Your task to perform on an android device: Open Google Chrome Image 0: 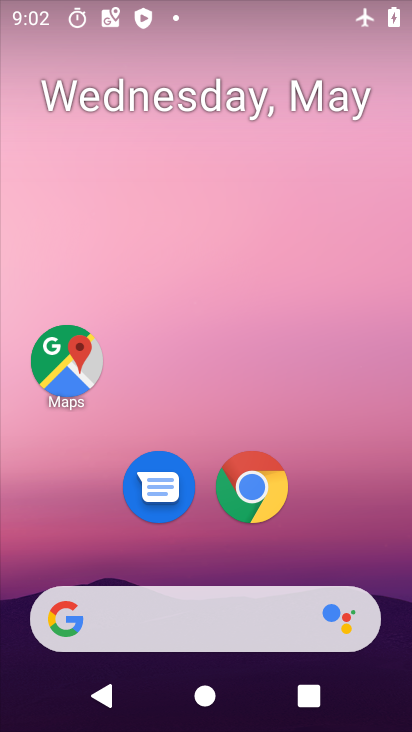
Step 0: click (242, 506)
Your task to perform on an android device: Open Google Chrome Image 1: 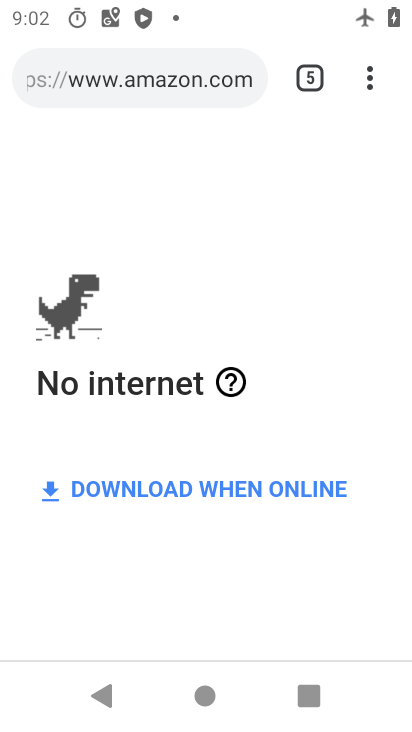
Step 1: task complete